Your task to perform on an android device: change keyboard looks Image 0: 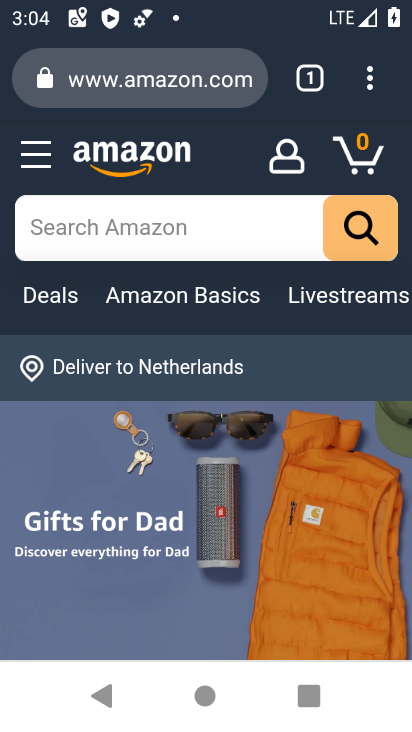
Step 0: press home button
Your task to perform on an android device: change keyboard looks Image 1: 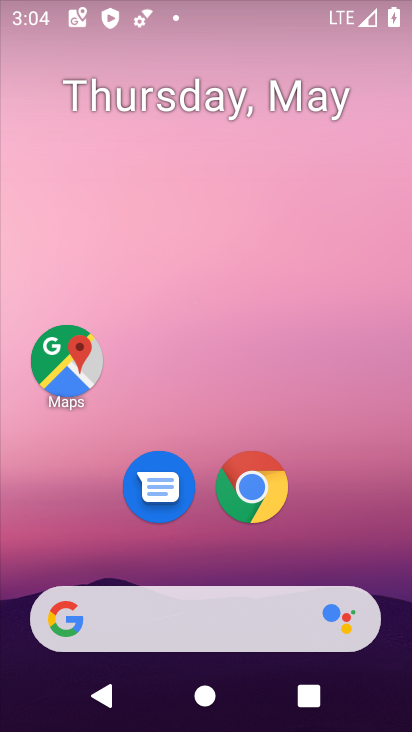
Step 1: drag from (197, 609) to (198, 81)
Your task to perform on an android device: change keyboard looks Image 2: 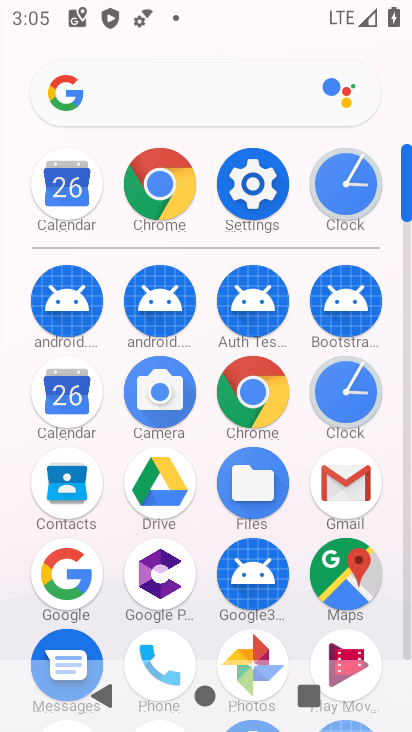
Step 2: click (272, 204)
Your task to perform on an android device: change keyboard looks Image 3: 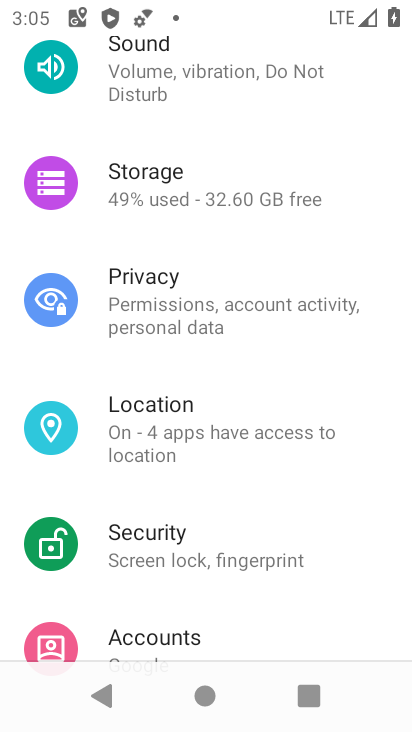
Step 3: drag from (182, 542) to (250, 1)
Your task to perform on an android device: change keyboard looks Image 4: 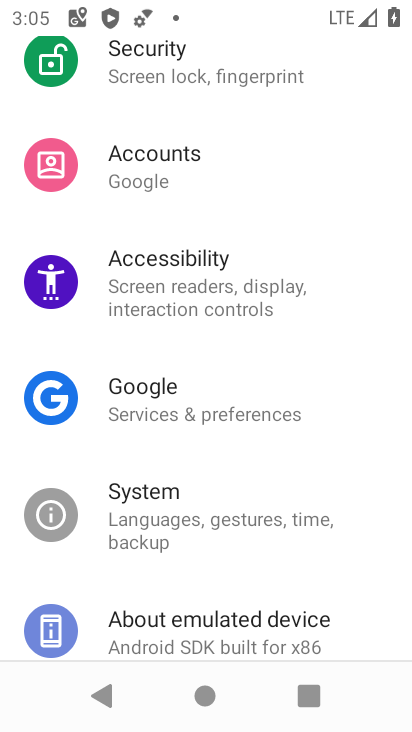
Step 4: drag from (197, 524) to (238, 146)
Your task to perform on an android device: change keyboard looks Image 5: 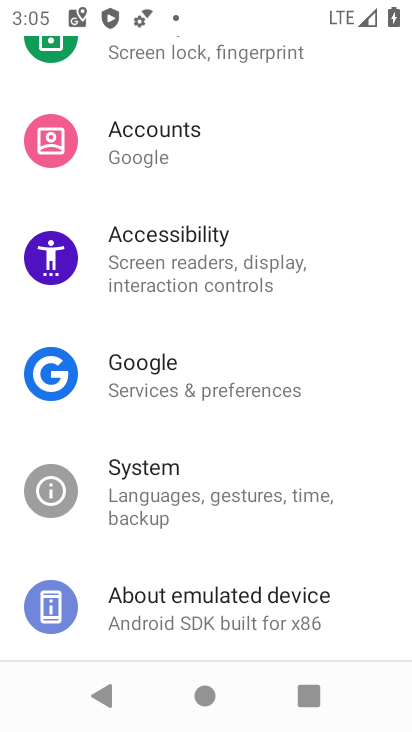
Step 5: click (190, 485)
Your task to perform on an android device: change keyboard looks Image 6: 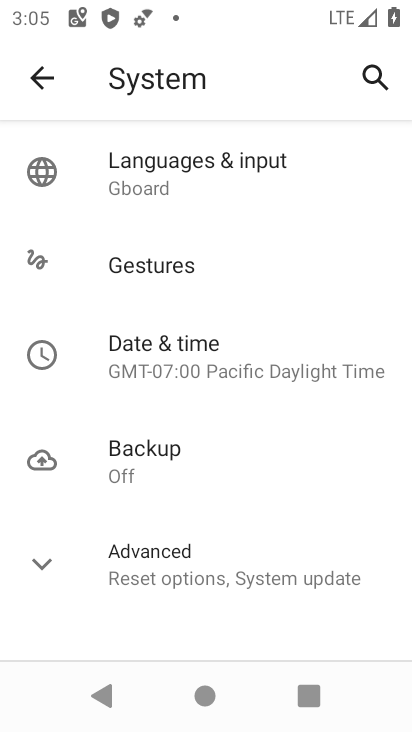
Step 6: click (194, 178)
Your task to perform on an android device: change keyboard looks Image 7: 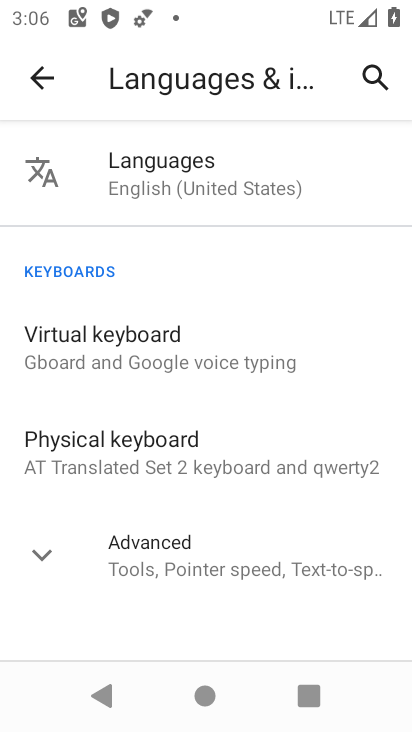
Step 7: click (188, 358)
Your task to perform on an android device: change keyboard looks Image 8: 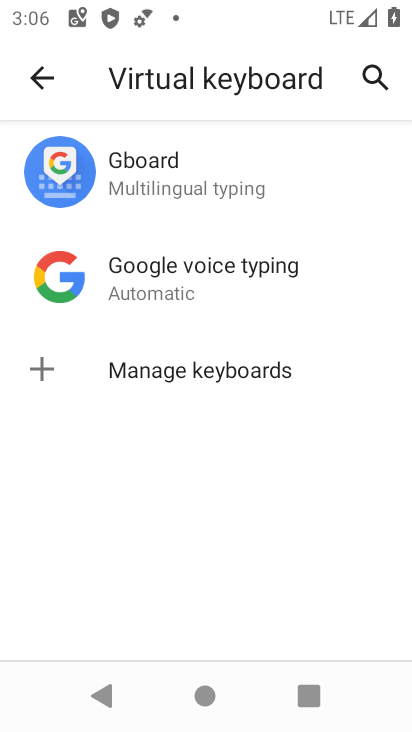
Step 8: click (206, 183)
Your task to perform on an android device: change keyboard looks Image 9: 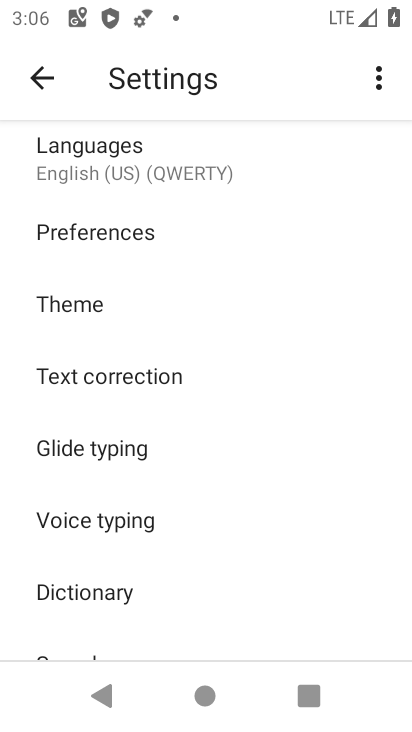
Step 9: click (126, 301)
Your task to perform on an android device: change keyboard looks Image 10: 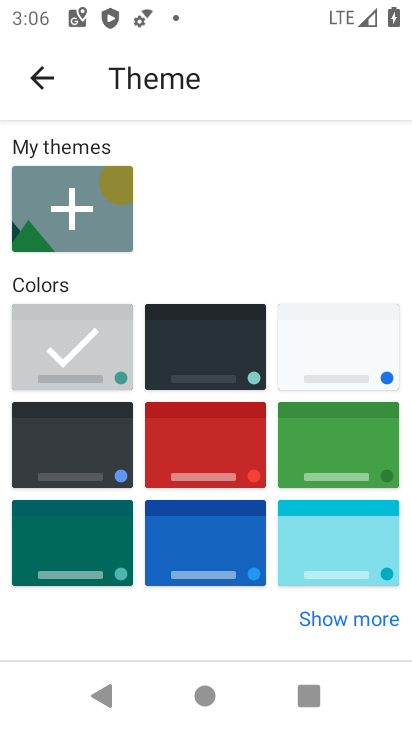
Step 10: click (335, 346)
Your task to perform on an android device: change keyboard looks Image 11: 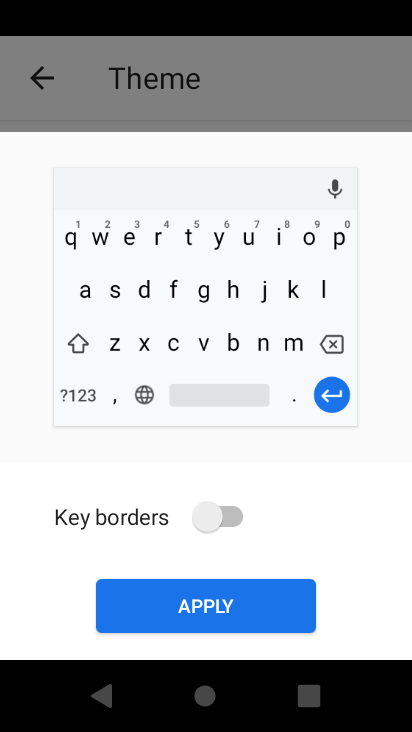
Step 11: click (221, 620)
Your task to perform on an android device: change keyboard looks Image 12: 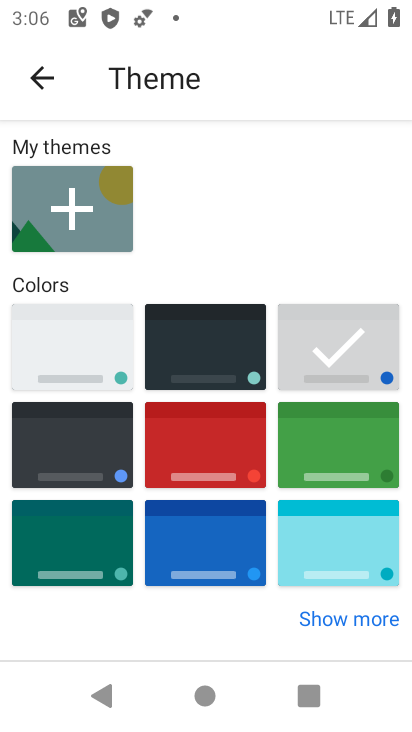
Step 12: task complete